Your task to perform on an android device: check android version Image 0: 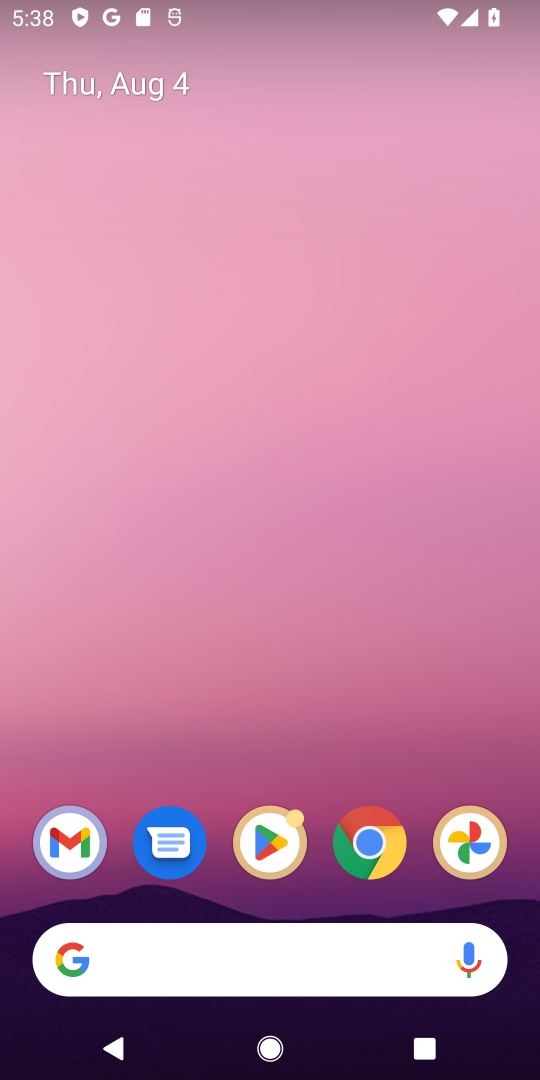
Step 0: drag from (414, 763) to (425, 0)
Your task to perform on an android device: check android version Image 1: 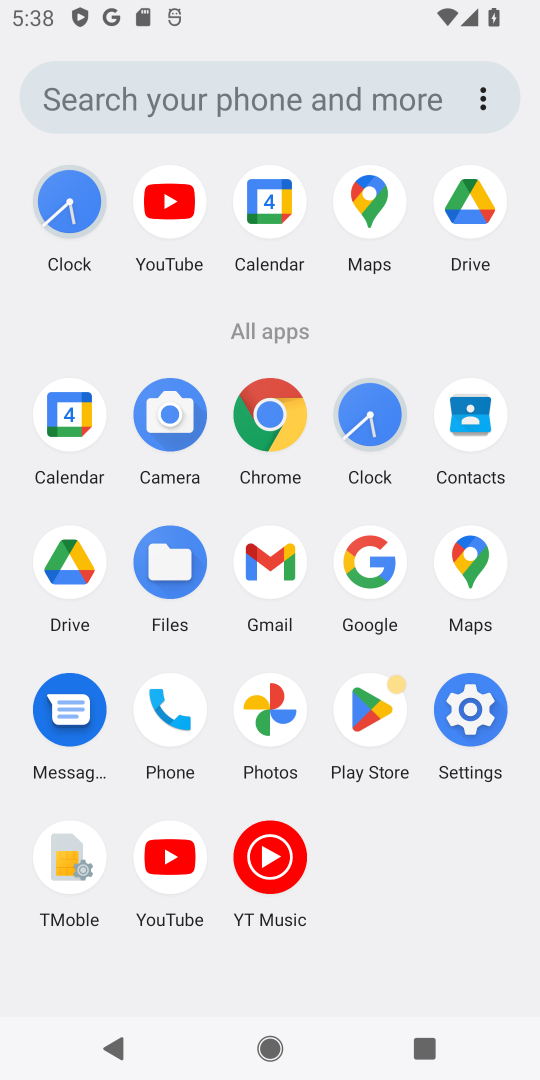
Step 1: click (495, 727)
Your task to perform on an android device: check android version Image 2: 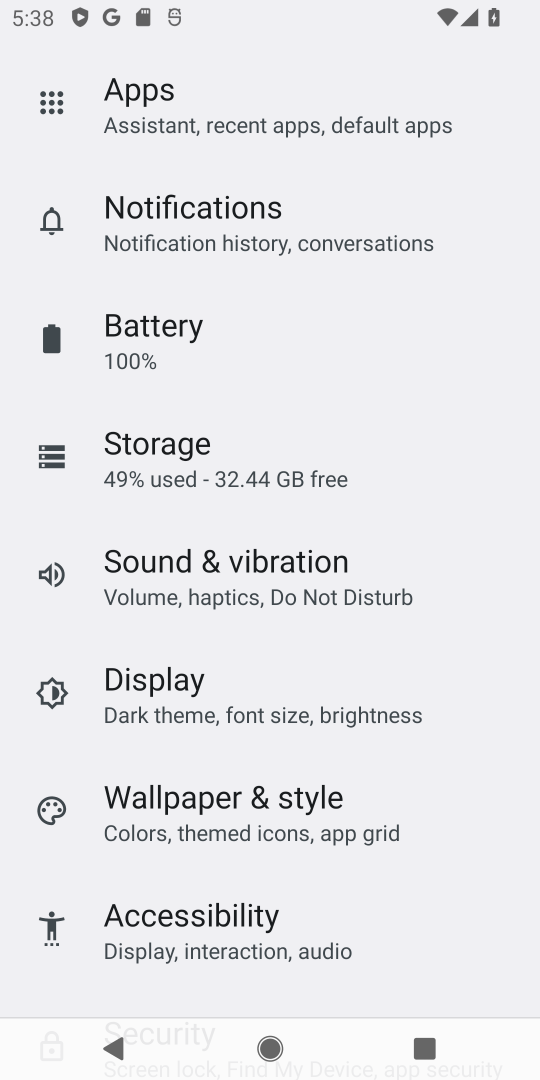
Step 2: drag from (401, 847) to (425, 117)
Your task to perform on an android device: check android version Image 3: 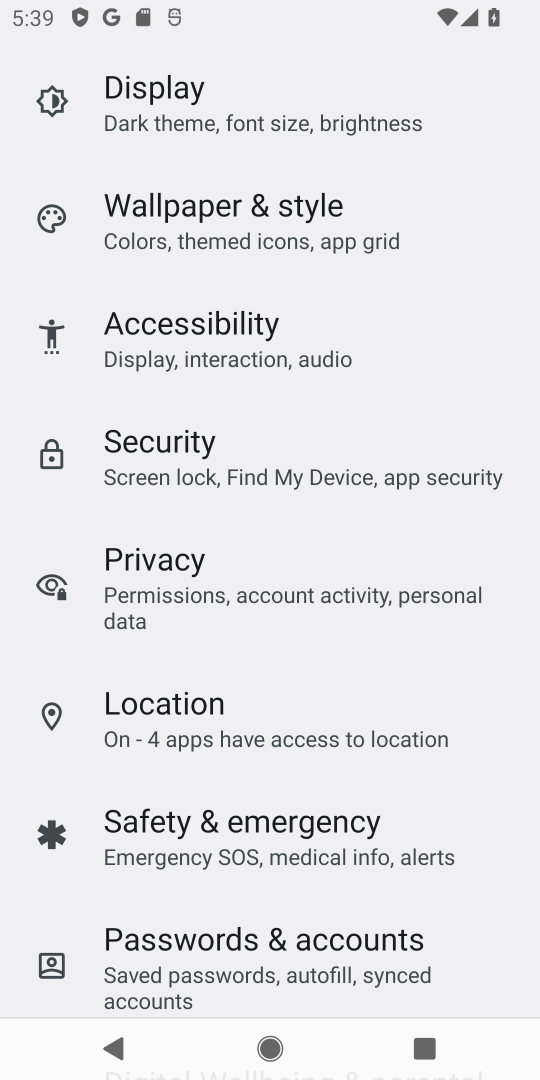
Step 3: drag from (460, 911) to (487, 78)
Your task to perform on an android device: check android version Image 4: 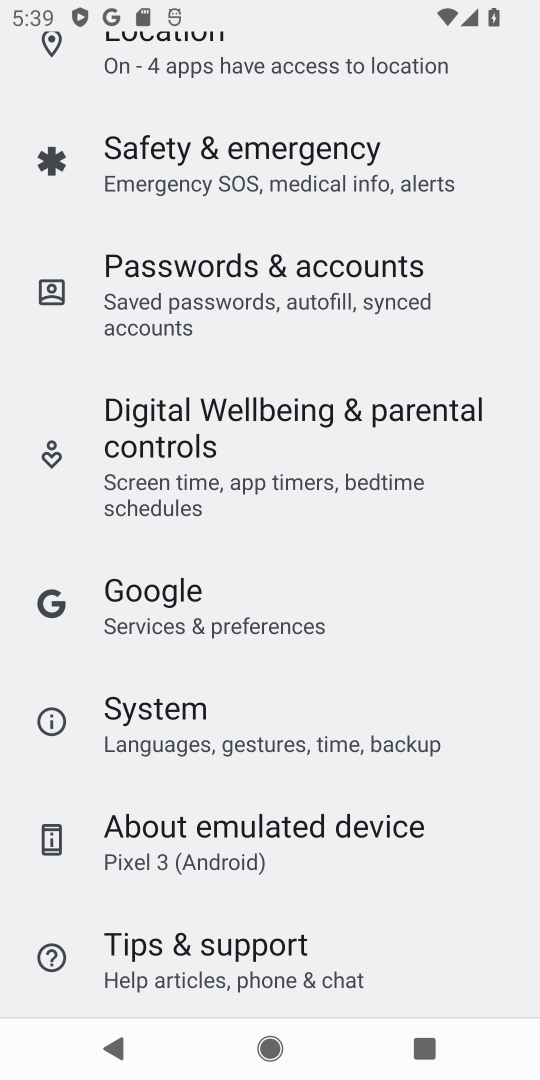
Step 4: drag from (356, 874) to (448, 176)
Your task to perform on an android device: check android version Image 5: 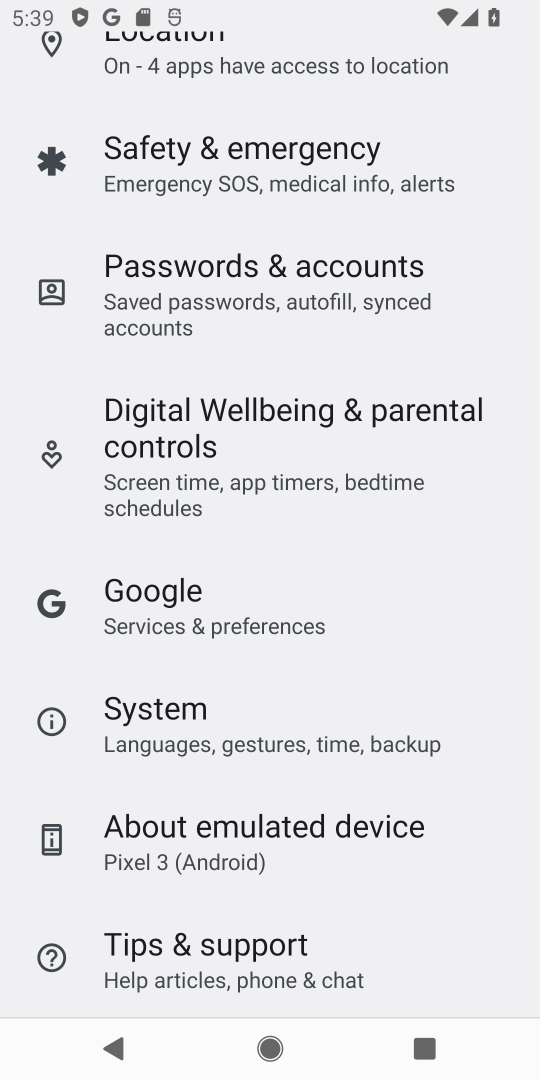
Step 5: click (278, 835)
Your task to perform on an android device: check android version Image 6: 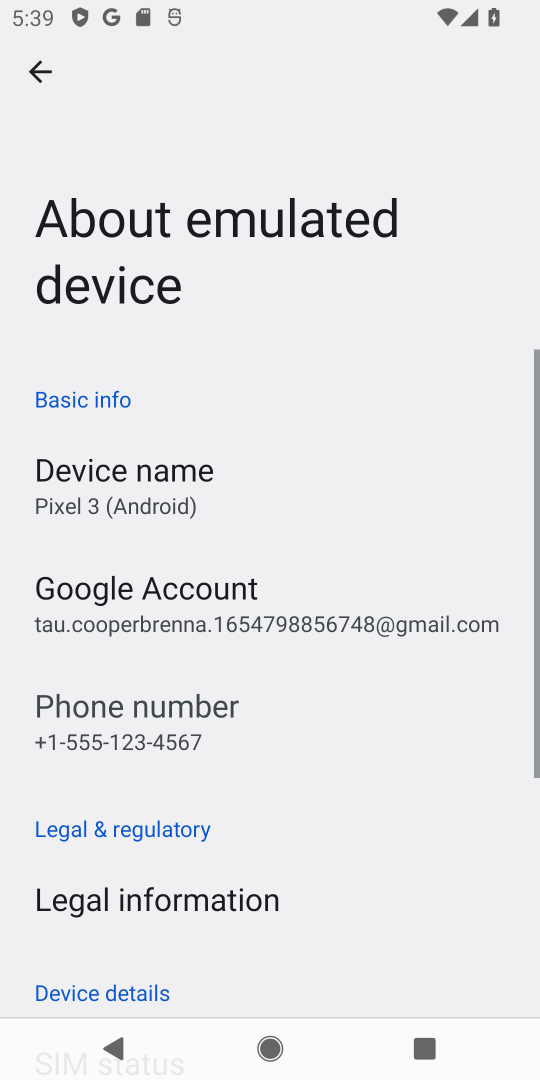
Step 6: drag from (389, 846) to (531, 100)
Your task to perform on an android device: check android version Image 7: 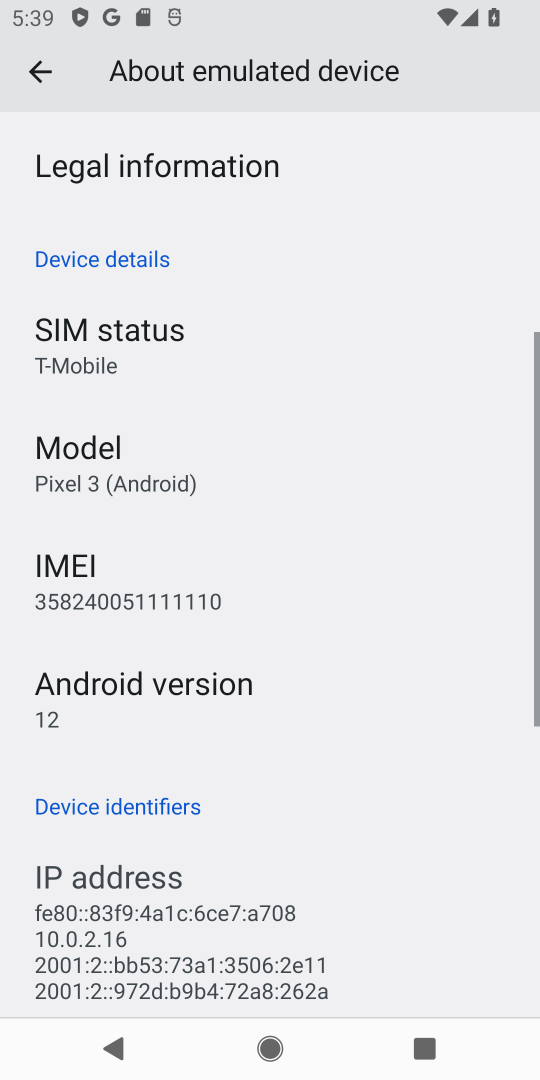
Step 7: drag from (381, 655) to (410, 258)
Your task to perform on an android device: check android version Image 8: 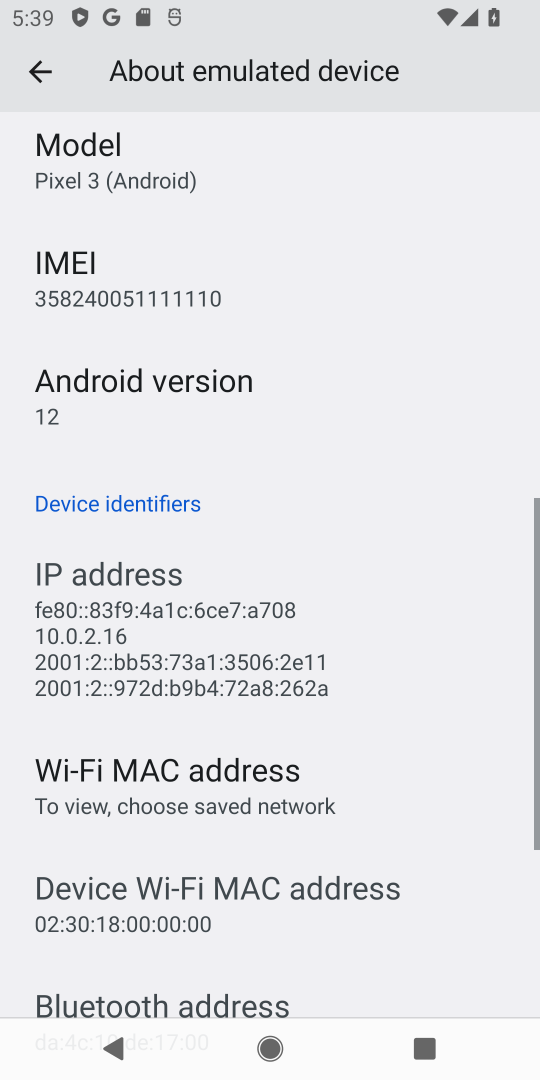
Step 8: click (159, 429)
Your task to perform on an android device: check android version Image 9: 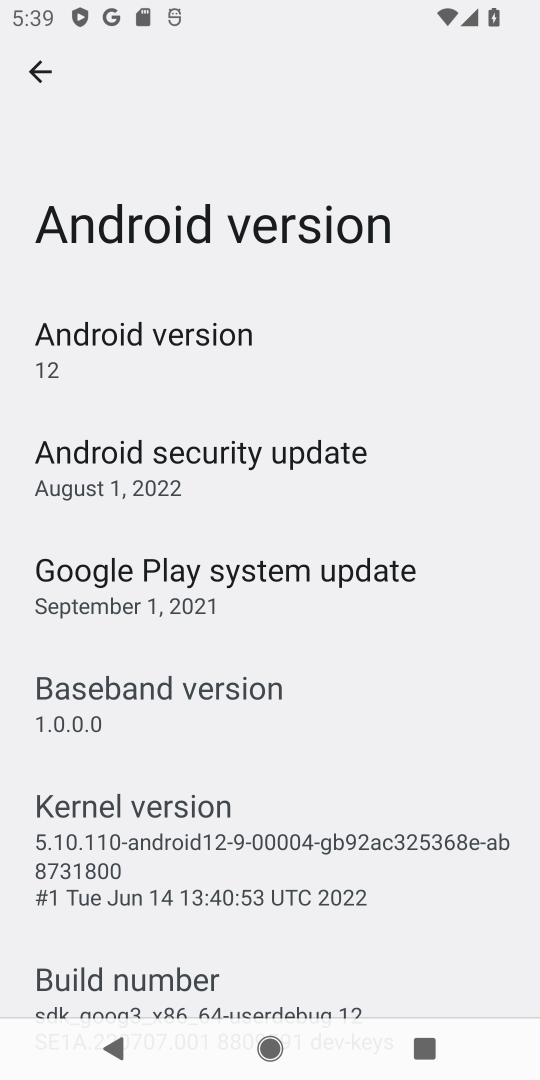
Step 9: click (194, 354)
Your task to perform on an android device: check android version Image 10: 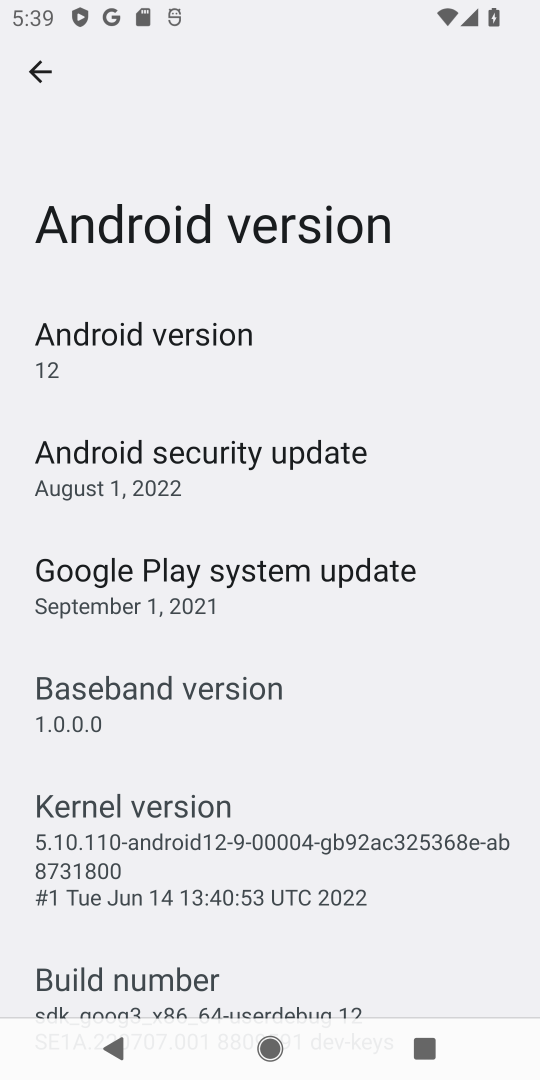
Step 10: task complete